Your task to perform on an android device: Search for seafood restaurants on Google Maps Image 0: 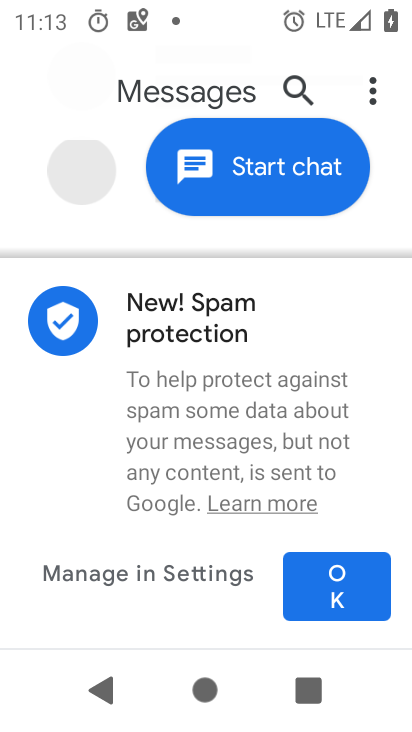
Step 0: press home button
Your task to perform on an android device: Search for seafood restaurants on Google Maps Image 1: 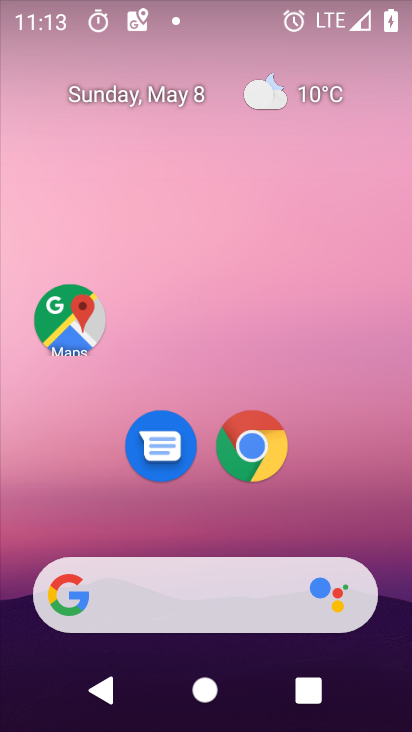
Step 1: click (70, 321)
Your task to perform on an android device: Search for seafood restaurants on Google Maps Image 2: 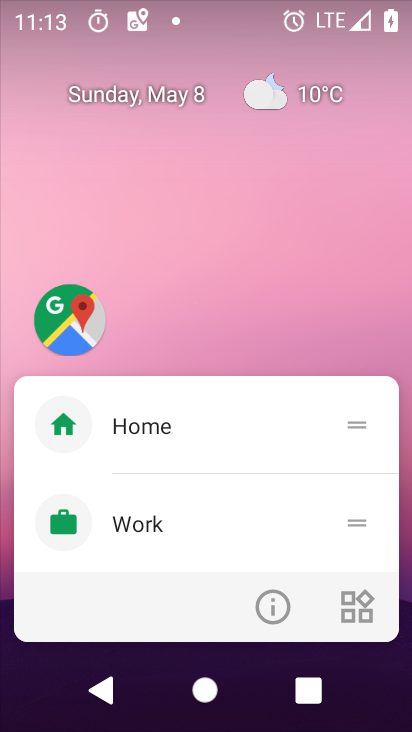
Step 2: click (71, 320)
Your task to perform on an android device: Search for seafood restaurants on Google Maps Image 3: 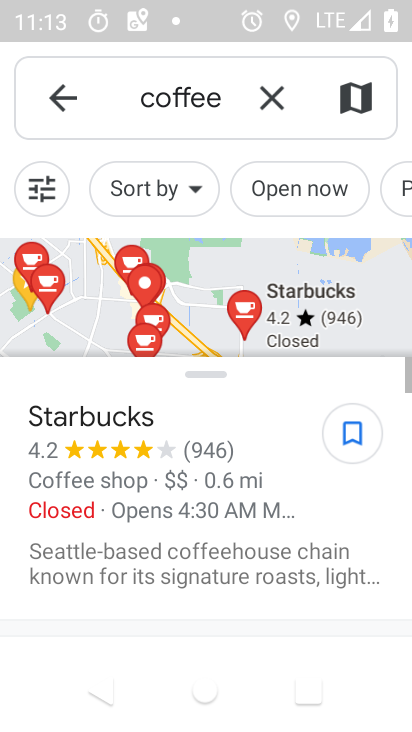
Step 3: click (83, 314)
Your task to perform on an android device: Search for seafood restaurants on Google Maps Image 4: 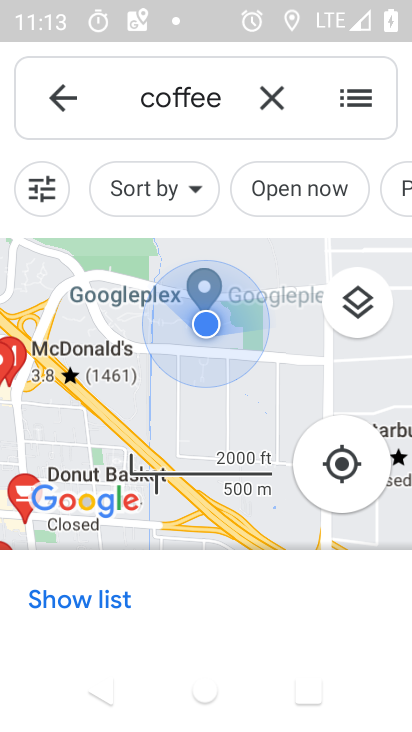
Step 4: click (257, 108)
Your task to perform on an android device: Search for seafood restaurants on Google Maps Image 5: 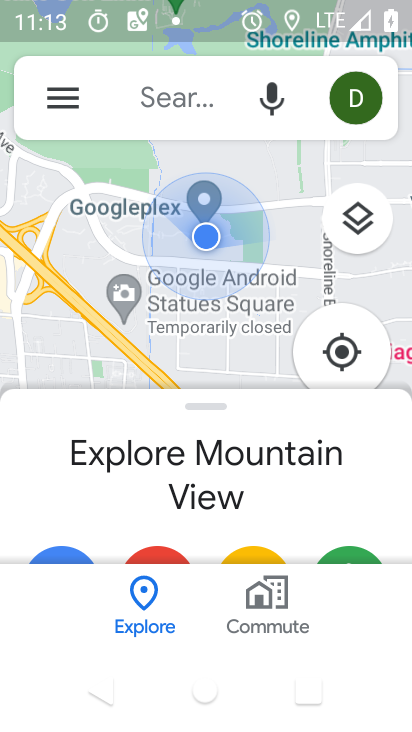
Step 5: click (113, 99)
Your task to perform on an android device: Search for seafood restaurants on Google Maps Image 6: 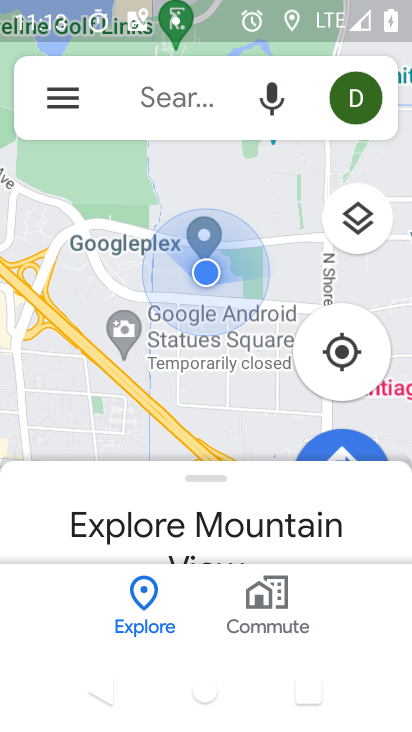
Step 6: click (146, 99)
Your task to perform on an android device: Search for seafood restaurants on Google Maps Image 7: 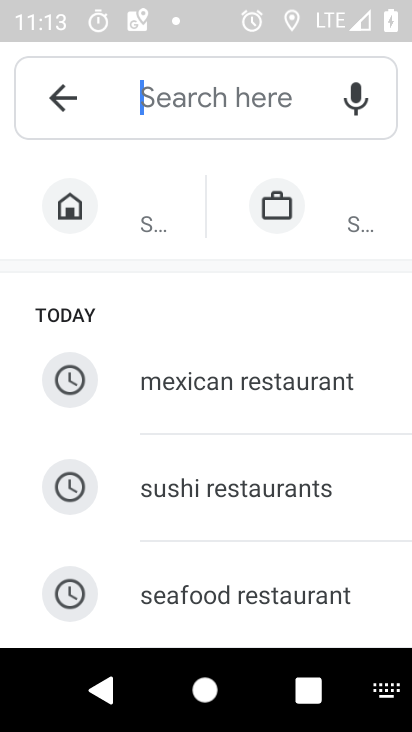
Step 7: type "seafood restaurant "
Your task to perform on an android device: Search for seafood restaurants on Google Maps Image 8: 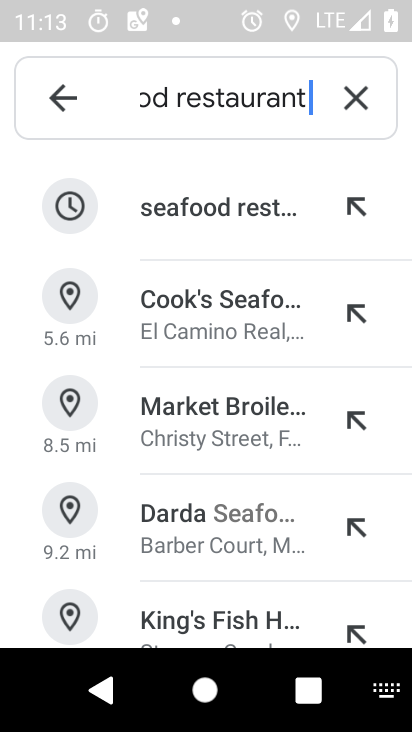
Step 8: click (156, 218)
Your task to perform on an android device: Search for seafood restaurants on Google Maps Image 9: 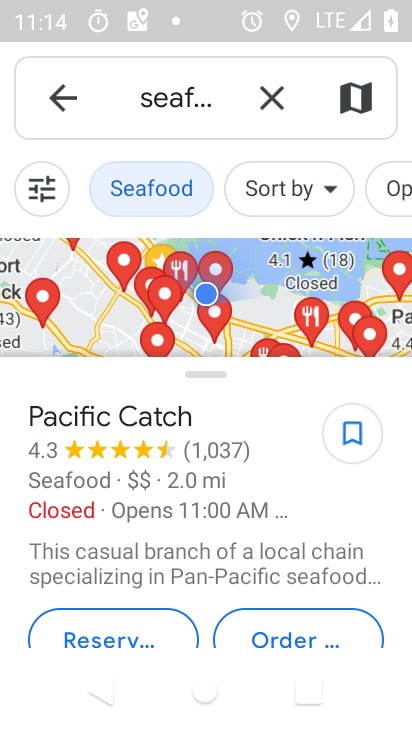
Step 9: task complete